Your task to perform on an android device: Go to location settings Image 0: 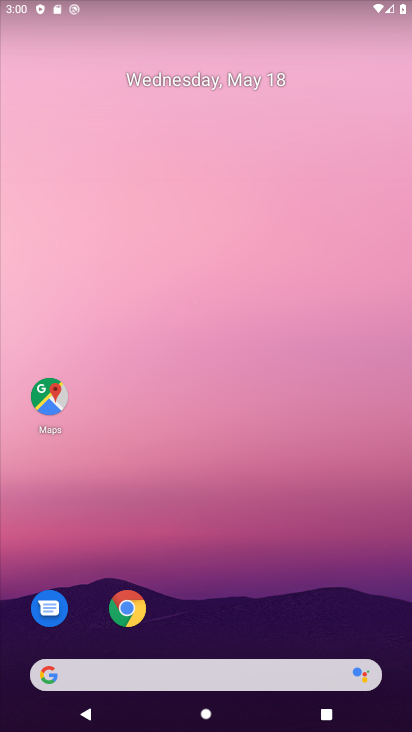
Step 0: drag from (182, 647) to (184, 257)
Your task to perform on an android device: Go to location settings Image 1: 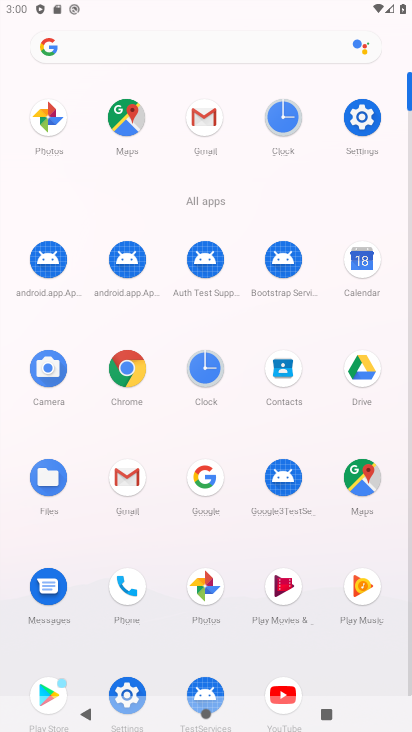
Step 1: click (355, 119)
Your task to perform on an android device: Go to location settings Image 2: 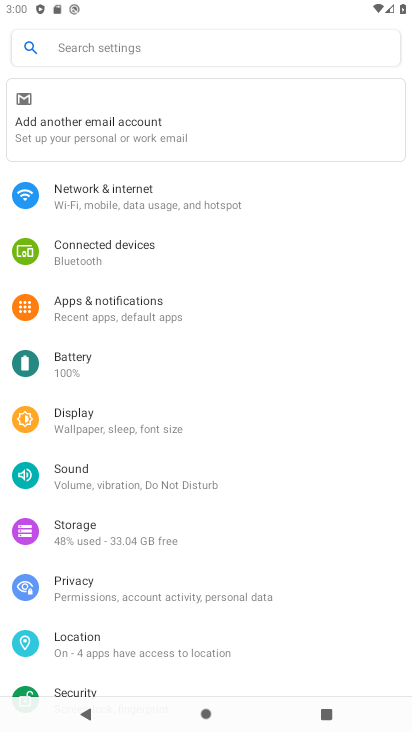
Step 2: click (86, 648)
Your task to perform on an android device: Go to location settings Image 3: 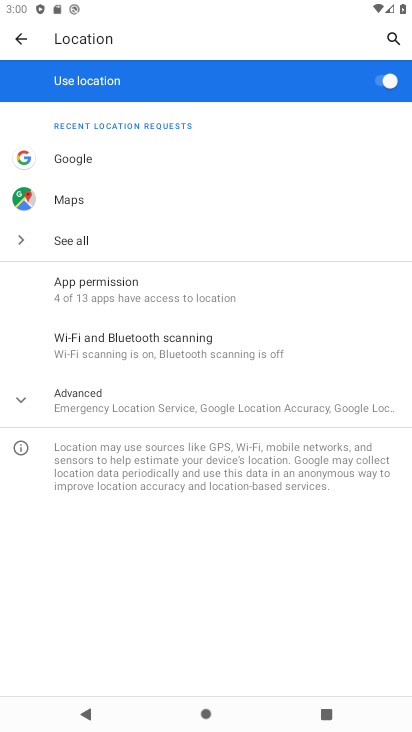
Step 3: click (73, 401)
Your task to perform on an android device: Go to location settings Image 4: 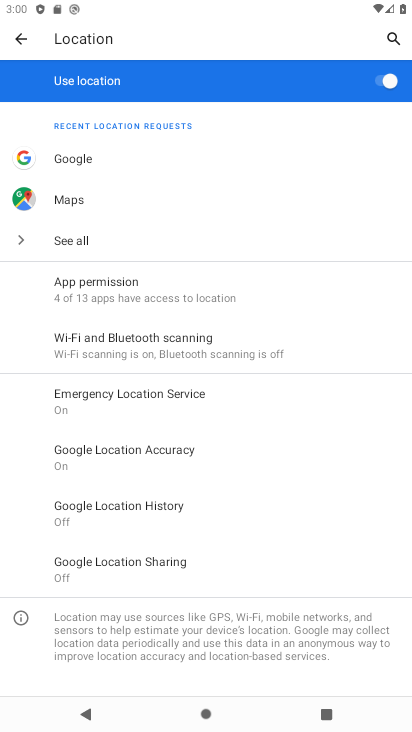
Step 4: task complete